Your task to perform on an android device: Go to internet settings Image 0: 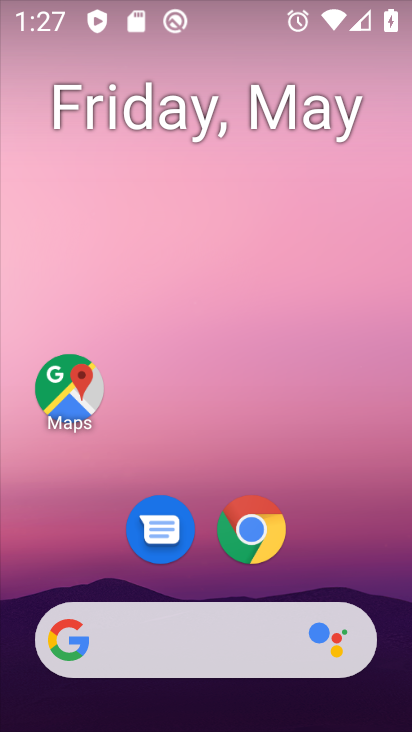
Step 0: drag from (398, 672) to (385, 218)
Your task to perform on an android device: Go to internet settings Image 1: 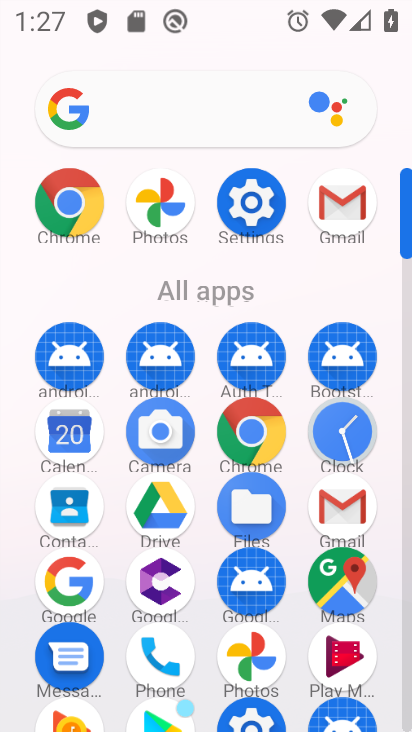
Step 1: click (246, 202)
Your task to perform on an android device: Go to internet settings Image 2: 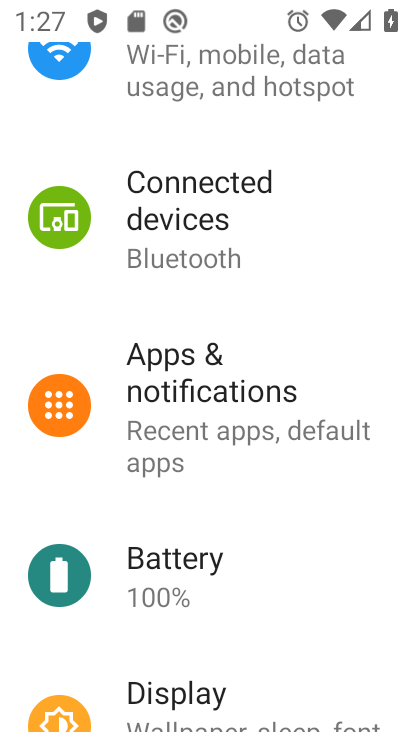
Step 2: drag from (359, 96) to (350, 421)
Your task to perform on an android device: Go to internet settings Image 3: 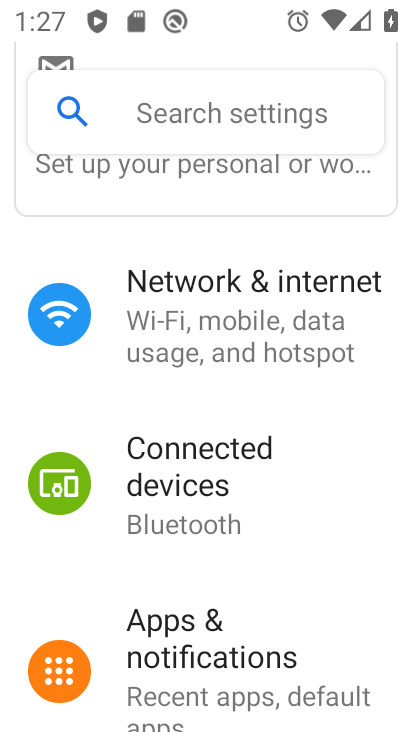
Step 3: click (223, 233)
Your task to perform on an android device: Go to internet settings Image 4: 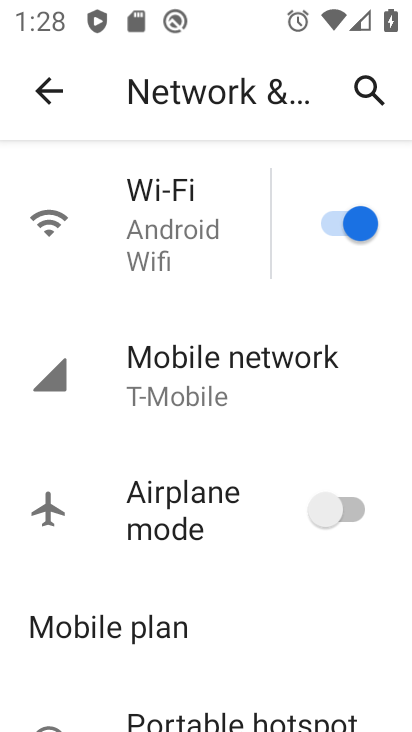
Step 4: click (166, 368)
Your task to perform on an android device: Go to internet settings Image 5: 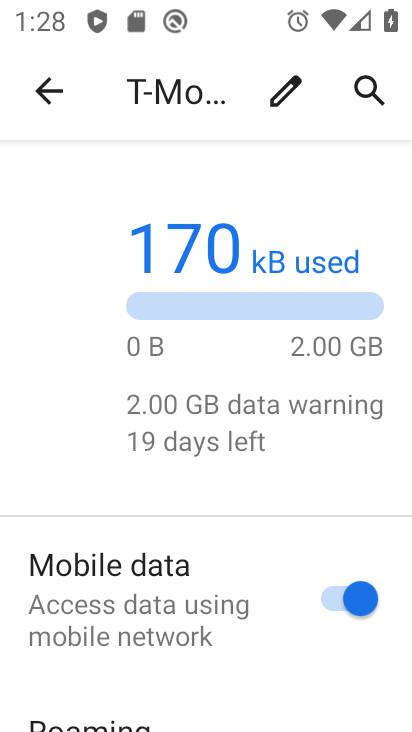
Step 5: task complete